Your task to perform on an android device: Search for seafood restaurants on Google Maps Image 0: 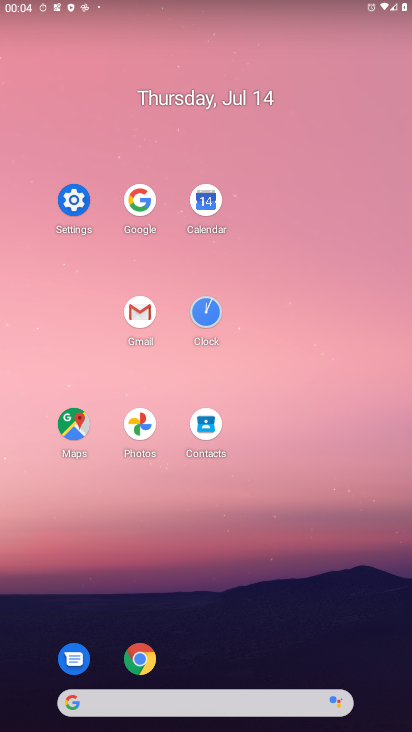
Step 0: click (75, 424)
Your task to perform on an android device: Search for seafood restaurants on Google Maps Image 1: 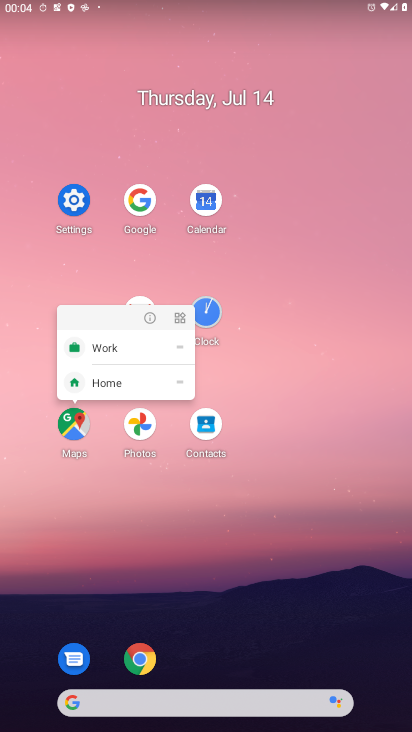
Step 1: click (88, 433)
Your task to perform on an android device: Search for seafood restaurants on Google Maps Image 2: 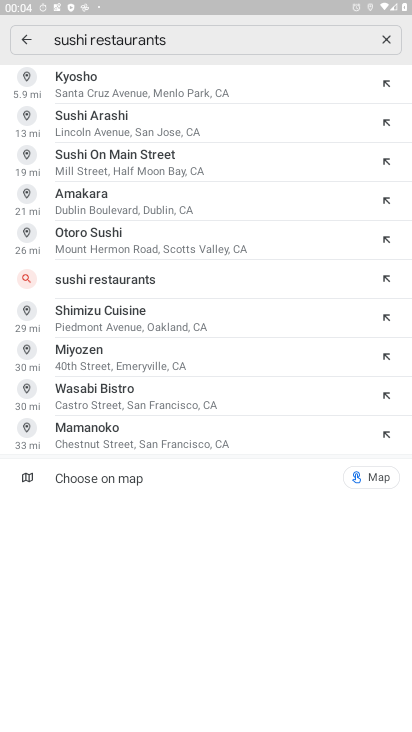
Step 2: click (383, 35)
Your task to perform on an android device: Search for seafood restaurants on Google Maps Image 3: 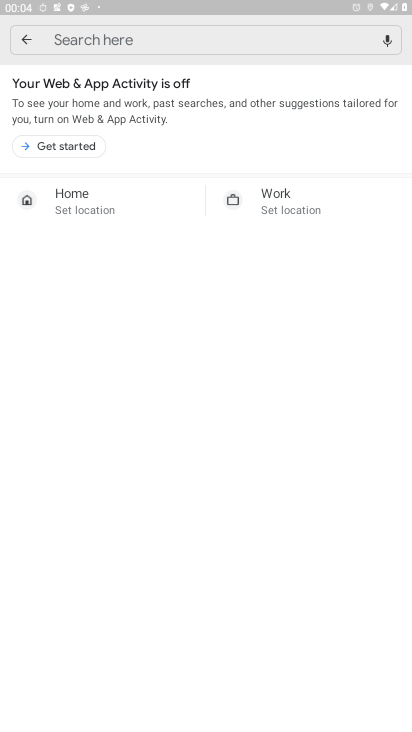
Step 3: click (131, 40)
Your task to perform on an android device: Search for seafood restaurants on Google Maps Image 4: 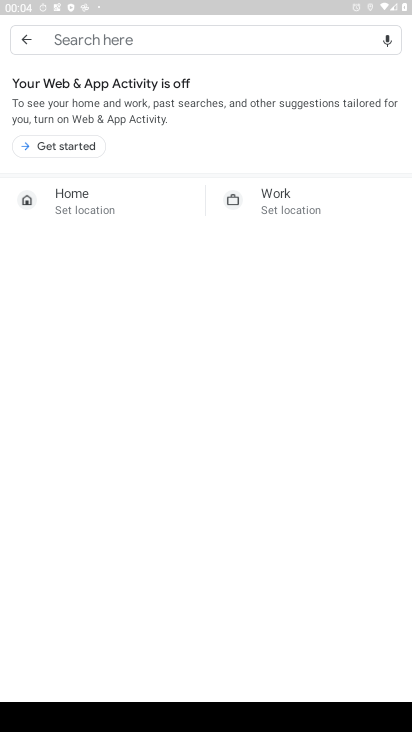
Step 4: type "seafood restaurants"
Your task to perform on an android device: Search for seafood restaurants on Google Maps Image 5: 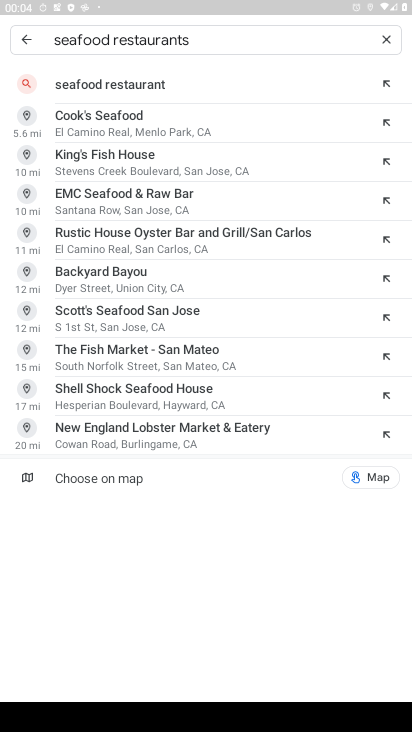
Step 5: click (152, 91)
Your task to perform on an android device: Search for seafood restaurants on Google Maps Image 6: 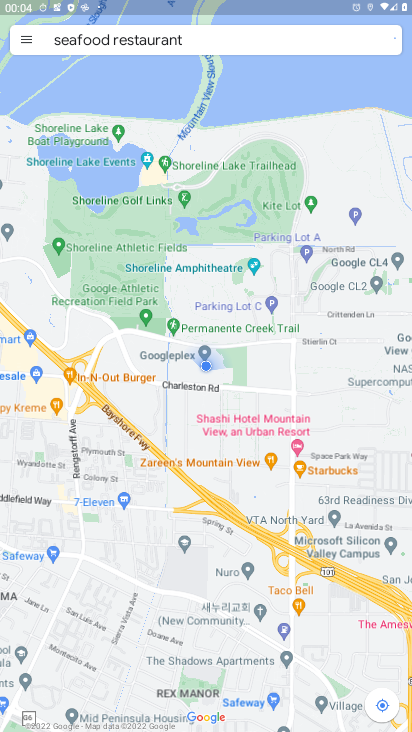
Step 6: task complete